Your task to perform on an android device: Show the shopping cart on walmart. Search for "sony triple a" on walmart, select the first entry, add it to the cart, then select checkout. Image 0: 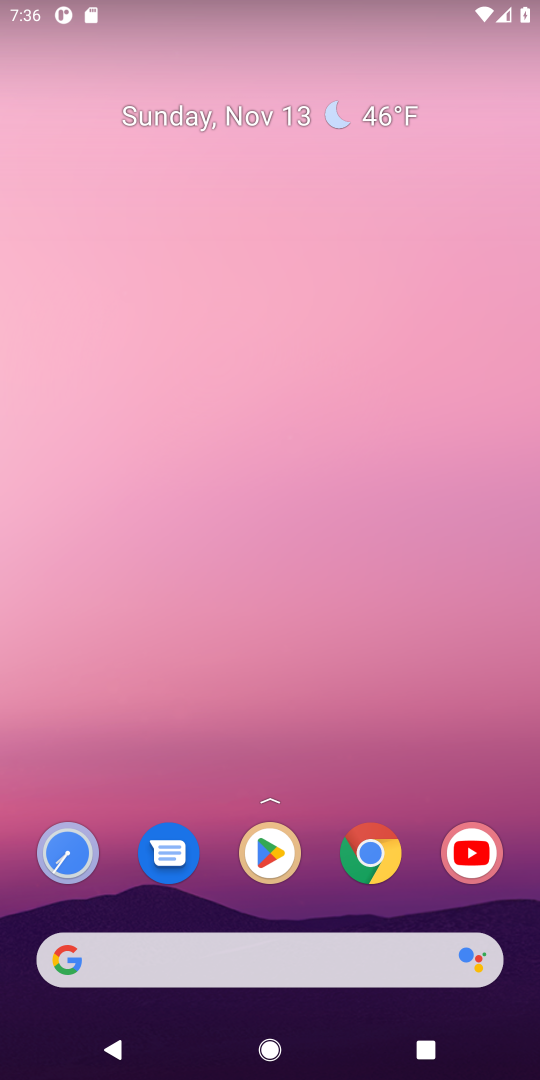
Step 0: press home button
Your task to perform on an android device: Show the shopping cart on walmart. Search for "sony triple a" on walmart, select the first entry, add it to the cart, then select checkout. Image 1: 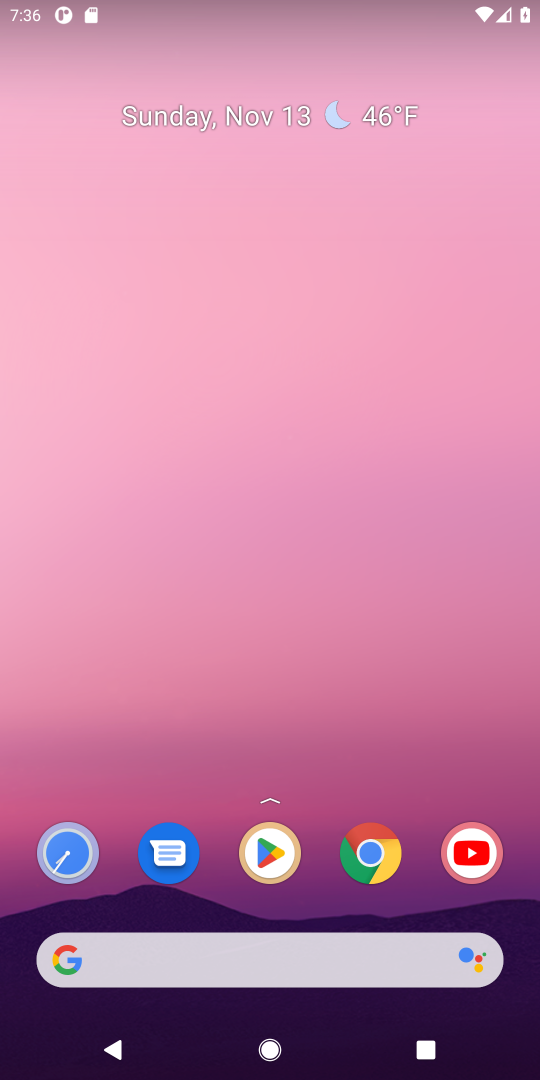
Step 1: click (103, 959)
Your task to perform on an android device: Show the shopping cart on walmart. Search for "sony triple a" on walmart, select the first entry, add it to the cart, then select checkout. Image 2: 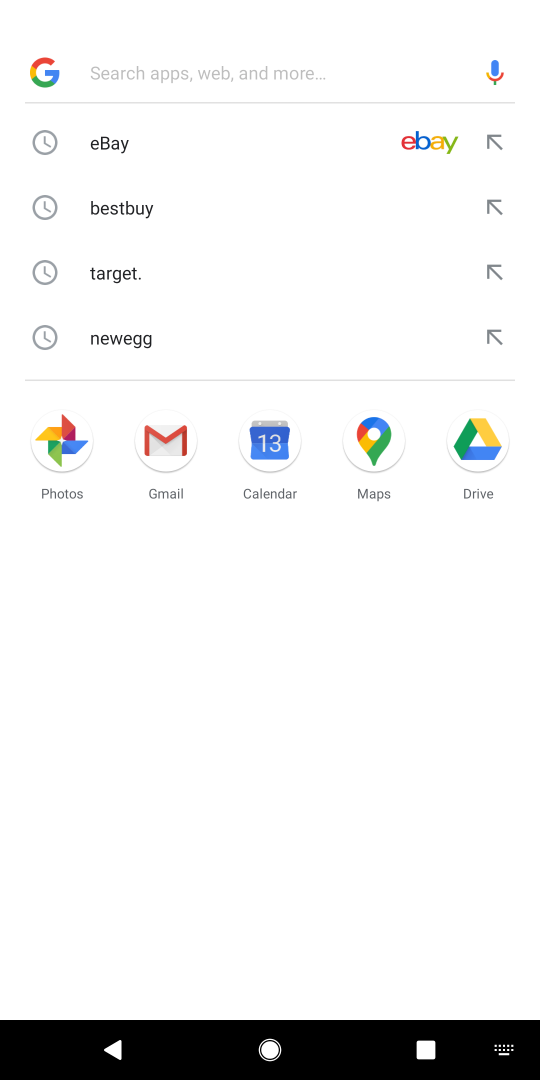
Step 2: type "walmart."
Your task to perform on an android device: Show the shopping cart on walmart. Search for "sony triple a" on walmart, select the first entry, add it to the cart, then select checkout. Image 3: 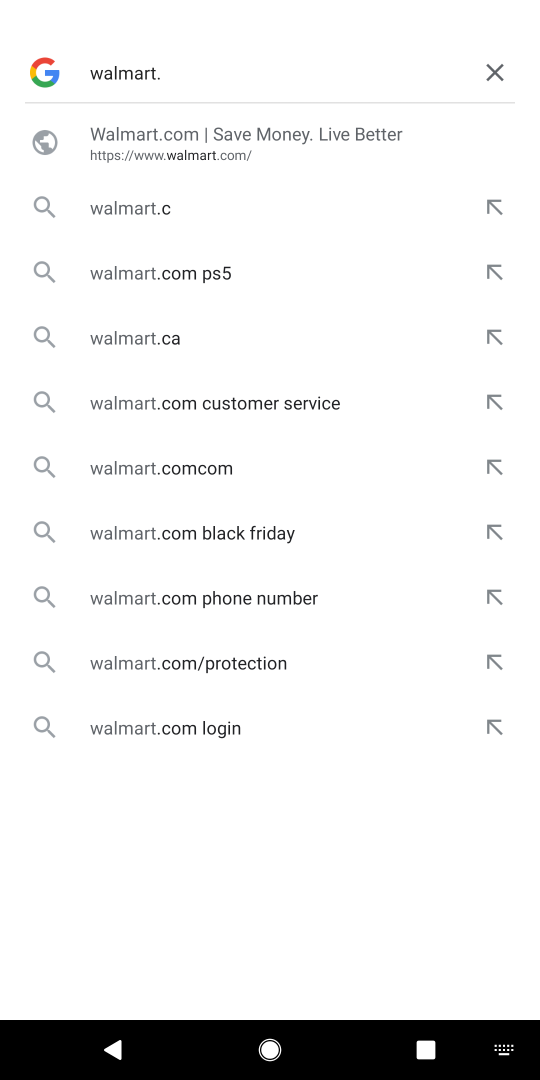
Step 3: press enter
Your task to perform on an android device: Show the shopping cart on walmart. Search for "sony triple a" on walmart, select the first entry, add it to the cart, then select checkout. Image 4: 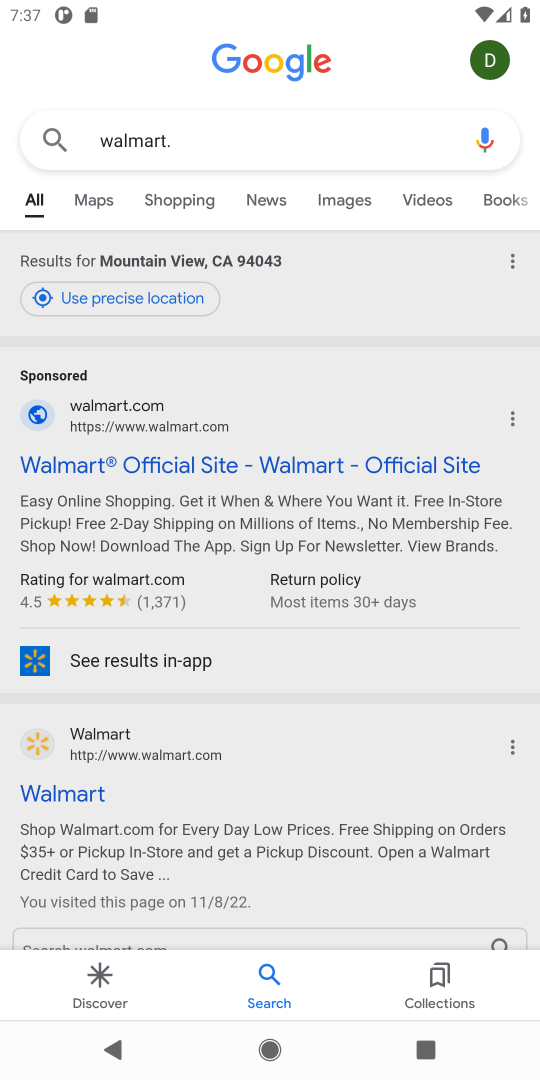
Step 4: click (178, 467)
Your task to perform on an android device: Show the shopping cart on walmart. Search for "sony triple a" on walmart, select the first entry, add it to the cart, then select checkout. Image 5: 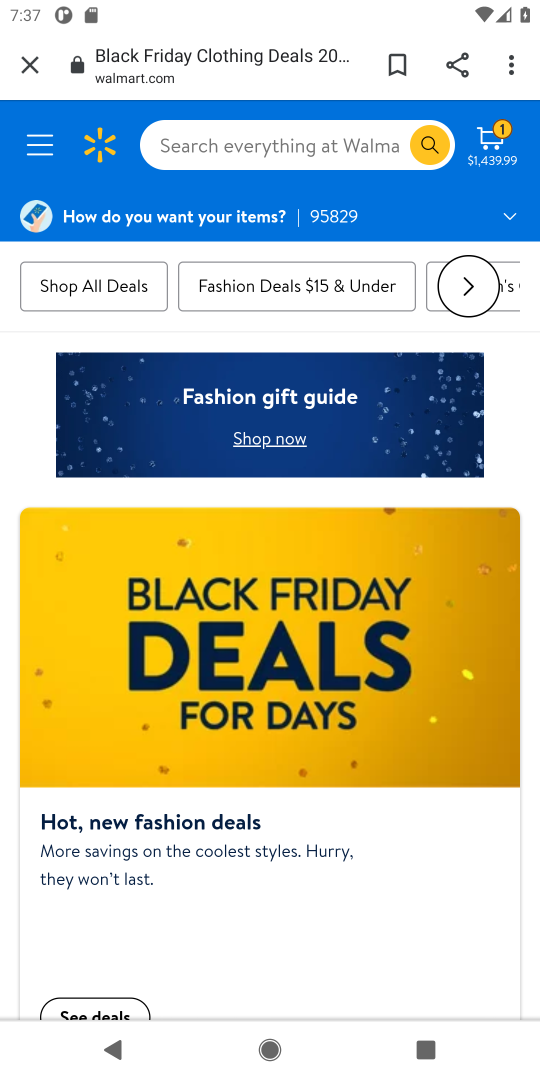
Step 5: click (499, 134)
Your task to perform on an android device: Show the shopping cart on walmart. Search for "sony triple a" on walmart, select the first entry, add it to the cart, then select checkout. Image 6: 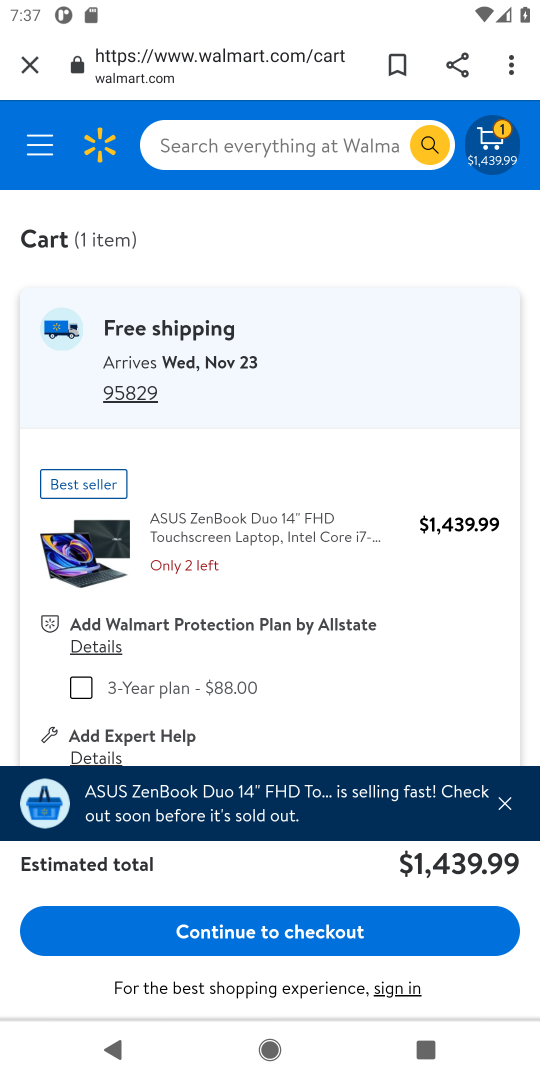
Step 6: click (189, 147)
Your task to perform on an android device: Show the shopping cart on walmart. Search for "sony triple a" on walmart, select the first entry, add it to the cart, then select checkout. Image 7: 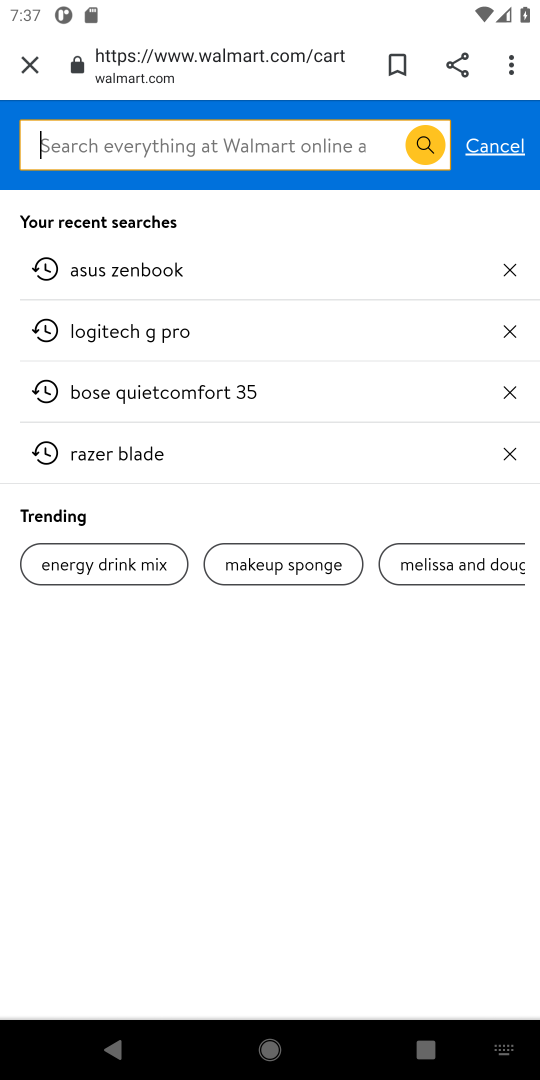
Step 7: type "sony triple a"
Your task to perform on an android device: Show the shopping cart on walmart. Search for "sony triple a" on walmart, select the first entry, add it to the cart, then select checkout. Image 8: 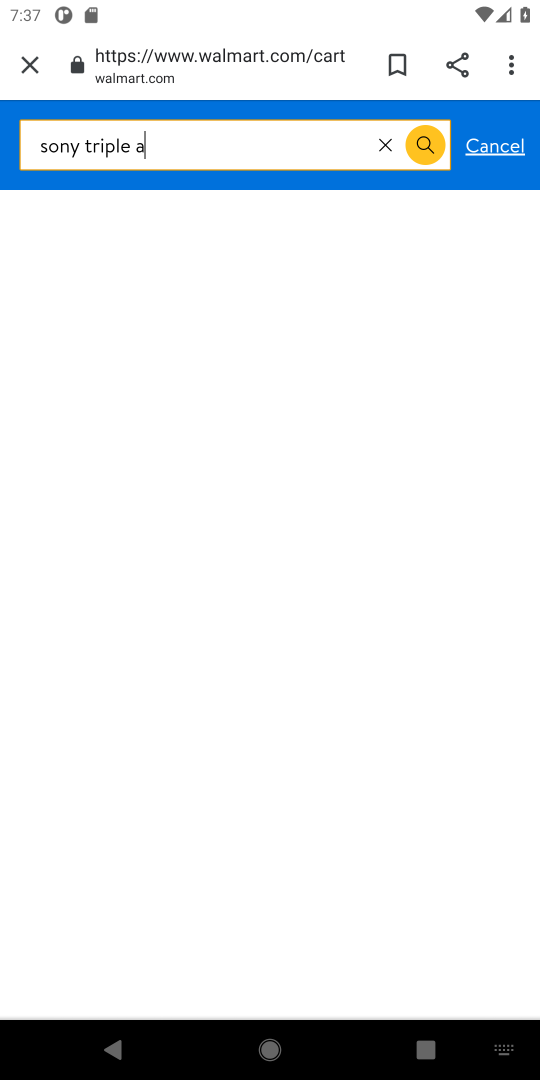
Step 8: press enter
Your task to perform on an android device: Show the shopping cart on walmart. Search for "sony triple a" on walmart, select the first entry, add it to the cart, then select checkout. Image 9: 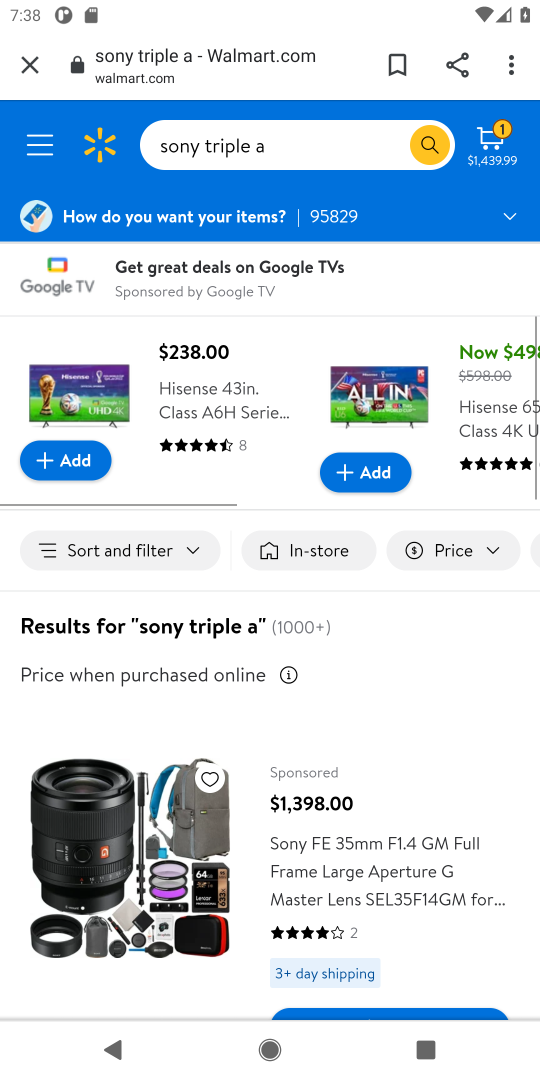
Step 9: drag from (415, 908) to (390, 497)
Your task to perform on an android device: Show the shopping cart on walmart. Search for "sony triple a" on walmart, select the first entry, add it to the cart, then select checkout. Image 10: 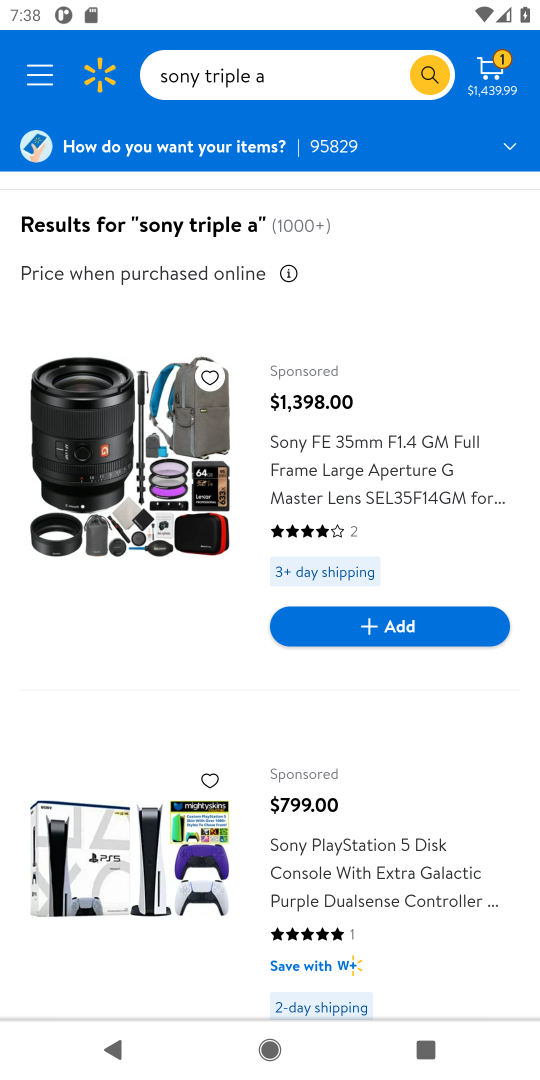
Step 10: drag from (383, 870) to (383, 446)
Your task to perform on an android device: Show the shopping cart on walmart. Search for "sony triple a" on walmart, select the first entry, add it to the cart, then select checkout. Image 11: 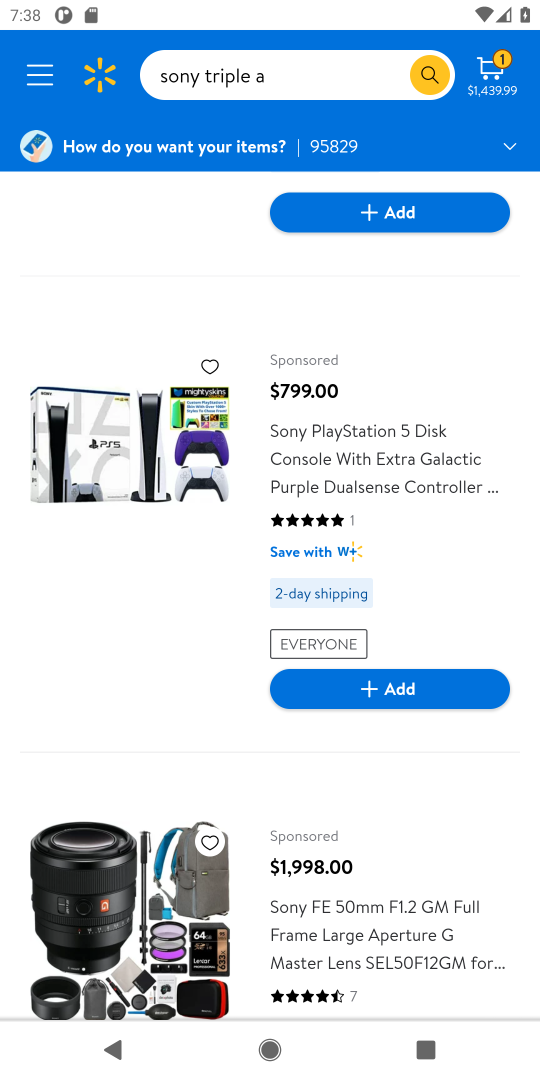
Step 11: drag from (365, 924) to (373, 472)
Your task to perform on an android device: Show the shopping cart on walmart. Search for "sony triple a" on walmart, select the first entry, add it to the cart, then select checkout. Image 12: 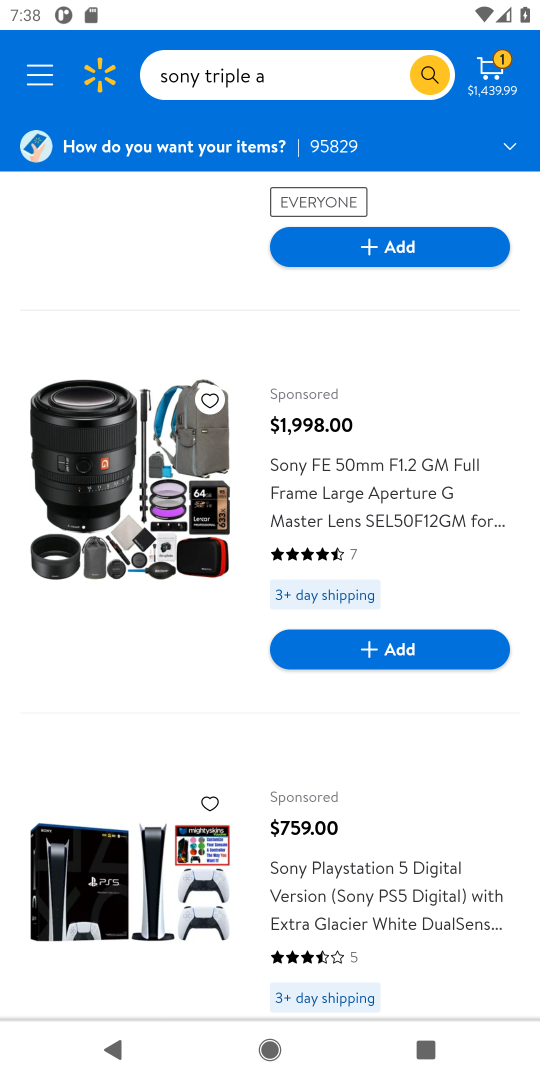
Step 12: drag from (399, 909) to (426, 465)
Your task to perform on an android device: Show the shopping cart on walmart. Search for "sony triple a" on walmart, select the first entry, add it to the cart, then select checkout. Image 13: 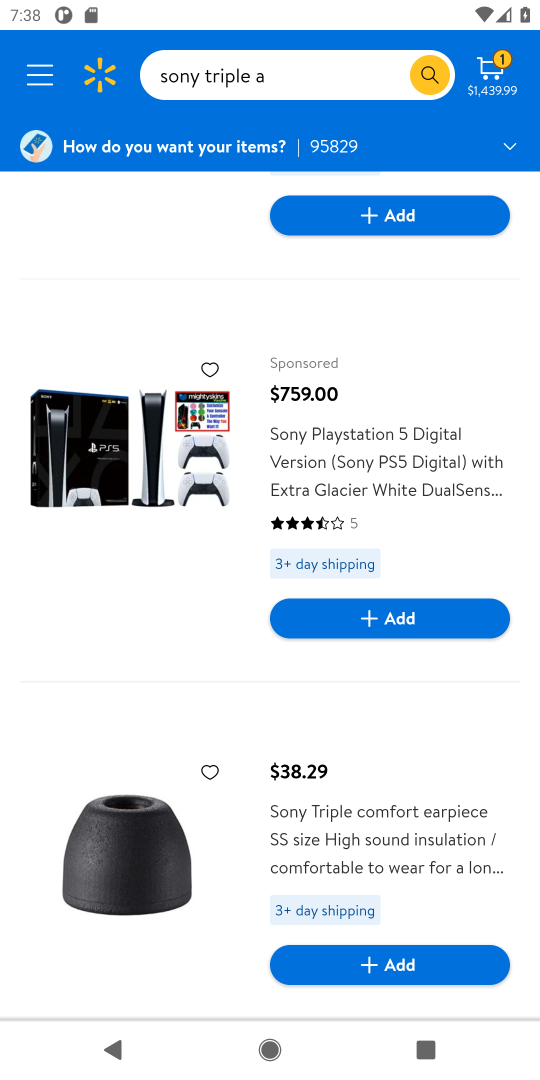
Step 13: drag from (396, 880) to (393, 590)
Your task to perform on an android device: Show the shopping cart on walmart. Search for "sony triple a" on walmart, select the first entry, add it to the cart, then select checkout. Image 14: 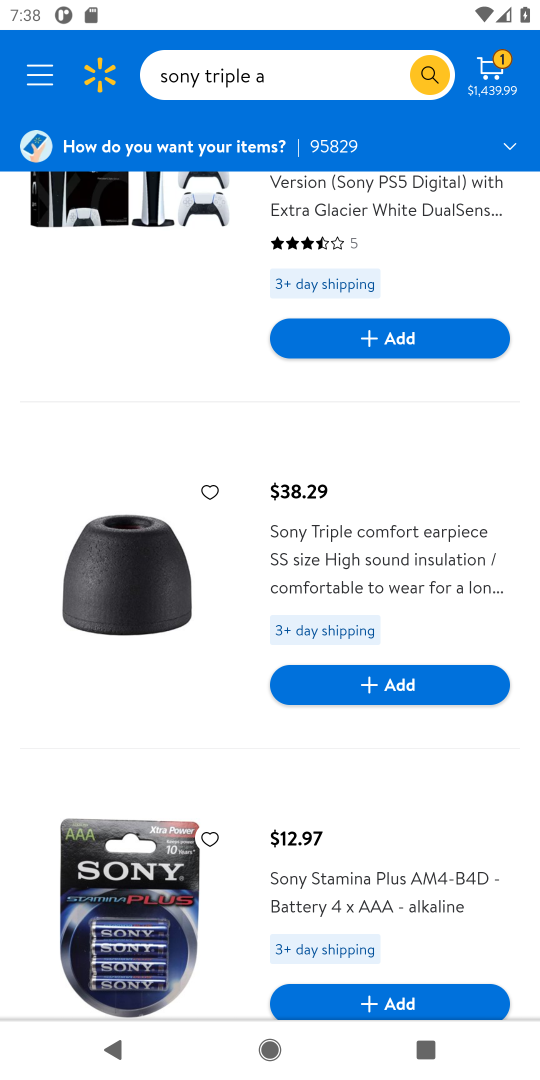
Step 14: drag from (296, 797) to (296, 542)
Your task to perform on an android device: Show the shopping cart on walmart. Search for "sony triple a" on walmart, select the first entry, add it to the cart, then select checkout. Image 15: 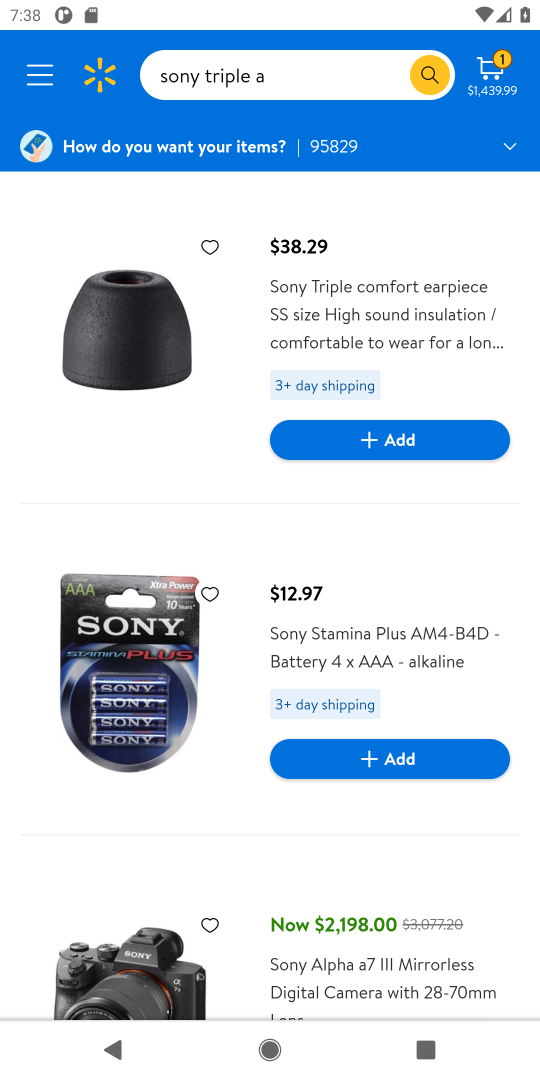
Step 15: click (396, 441)
Your task to perform on an android device: Show the shopping cart on walmart. Search for "sony triple a" on walmart, select the first entry, add it to the cart, then select checkout. Image 16: 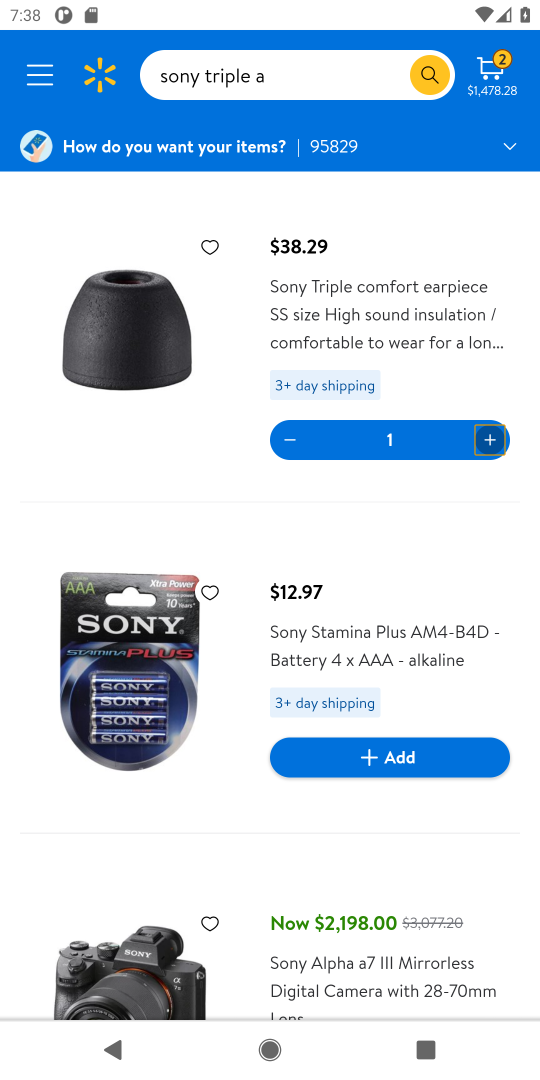
Step 16: task complete